Your task to perform on an android device: check the backup settings in the google photos Image 0: 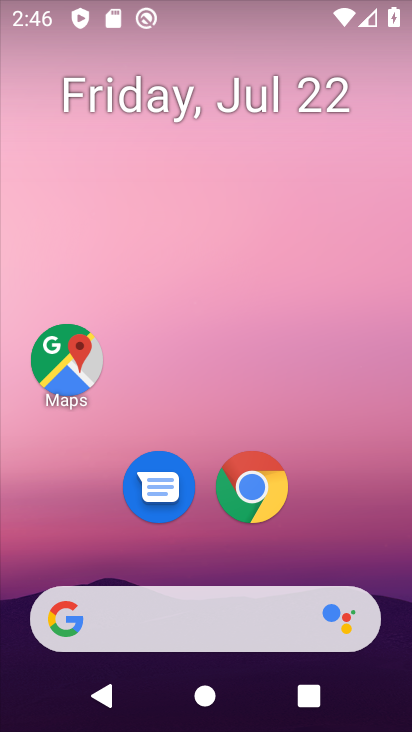
Step 0: drag from (179, 556) to (216, 60)
Your task to perform on an android device: check the backup settings in the google photos Image 1: 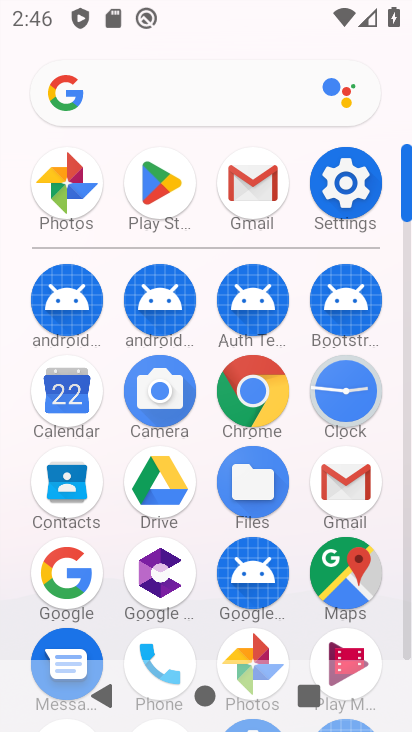
Step 1: click (251, 647)
Your task to perform on an android device: check the backup settings in the google photos Image 2: 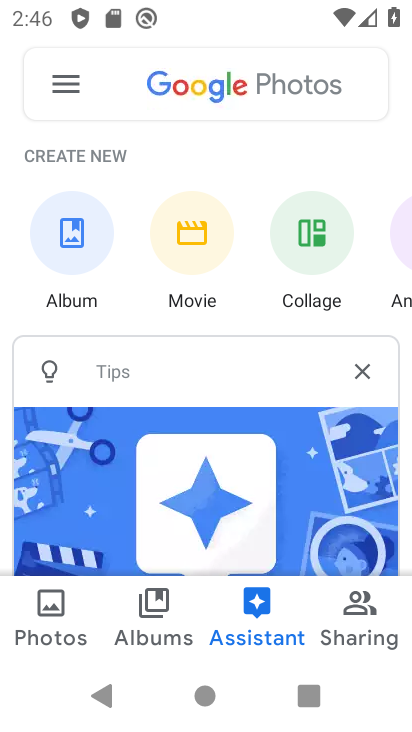
Step 2: click (56, 76)
Your task to perform on an android device: check the backup settings in the google photos Image 3: 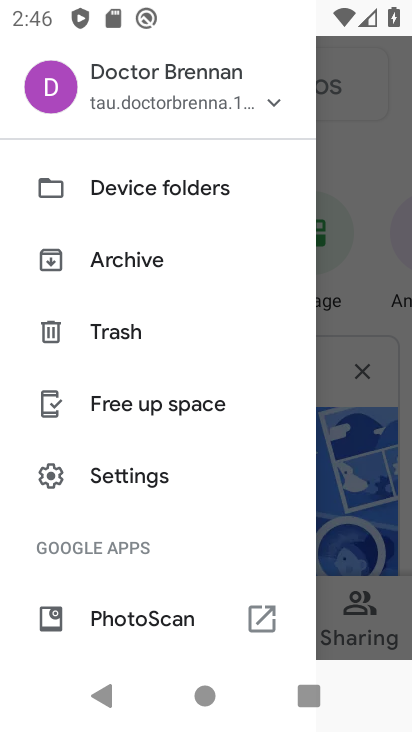
Step 3: click (143, 474)
Your task to perform on an android device: check the backup settings in the google photos Image 4: 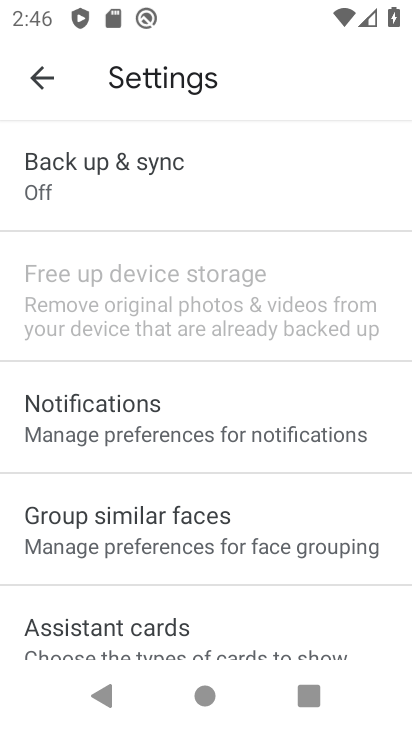
Step 4: task complete